Your task to perform on an android device: Go to CNN.com Image 0: 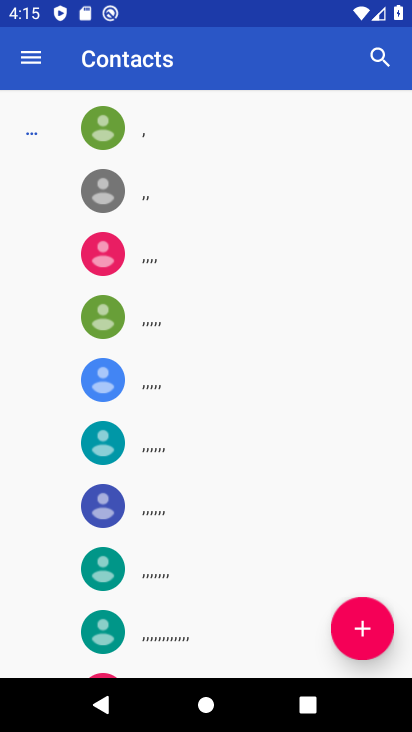
Step 0: press home button
Your task to perform on an android device: Go to CNN.com Image 1: 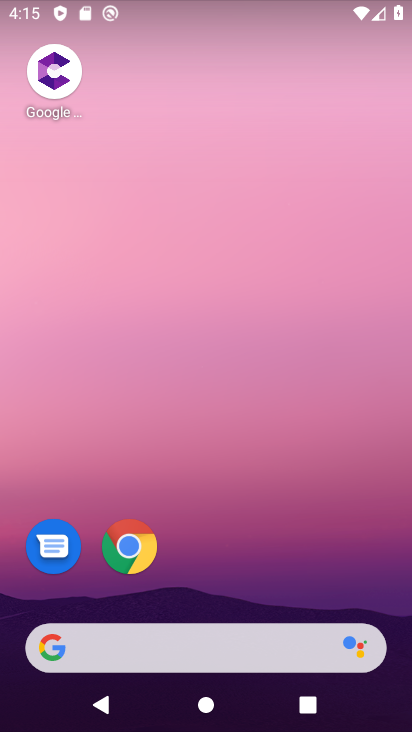
Step 1: click (143, 559)
Your task to perform on an android device: Go to CNN.com Image 2: 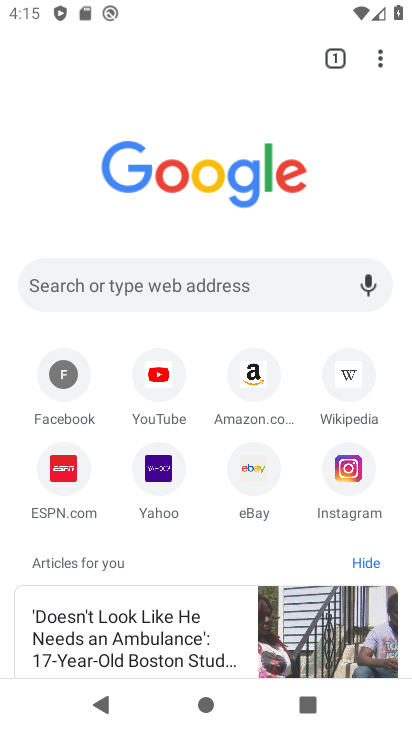
Step 2: click (123, 283)
Your task to perform on an android device: Go to CNN.com Image 3: 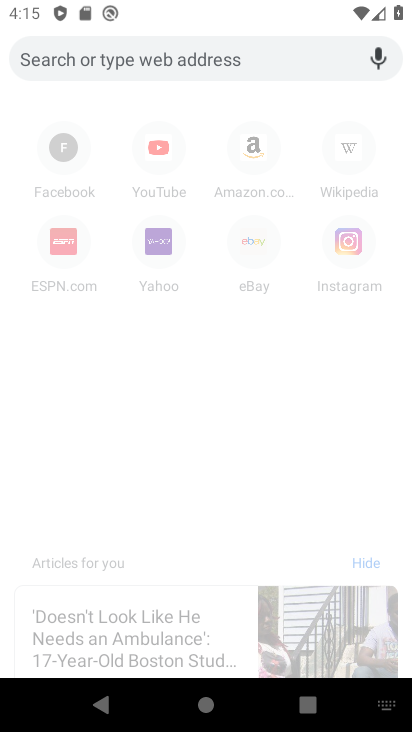
Step 3: type "CNN.com"
Your task to perform on an android device: Go to CNN.com Image 4: 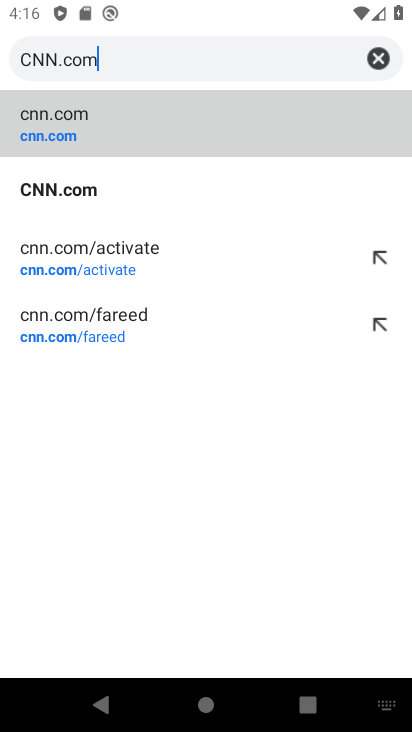
Step 4: click (69, 145)
Your task to perform on an android device: Go to CNN.com Image 5: 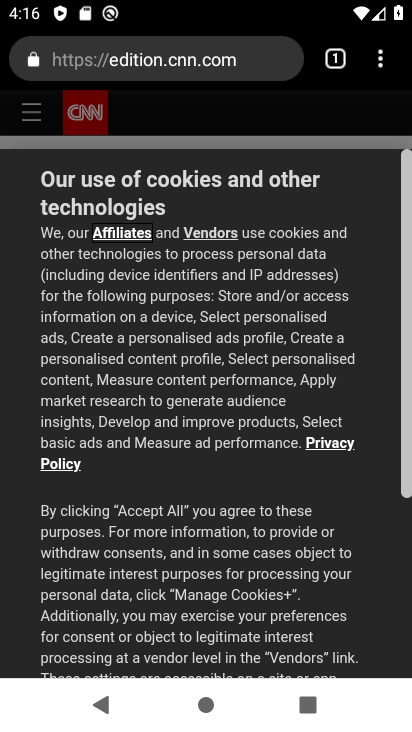
Step 5: task complete